Your task to perform on an android device: Open accessibility settings Image 0: 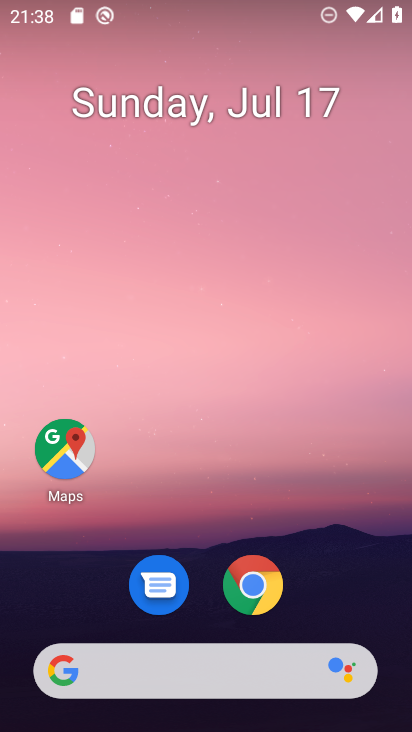
Step 0: drag from (216, 648) to (263, 104)
Your task to perform on an android device: Open accessibility settings Image 1: 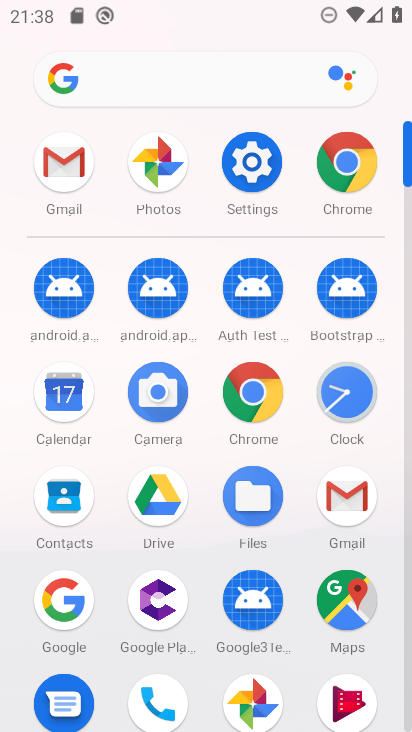
Step 1: click (261, 175)
Your task to perform on an android device: Open accessibility settings Image 2: 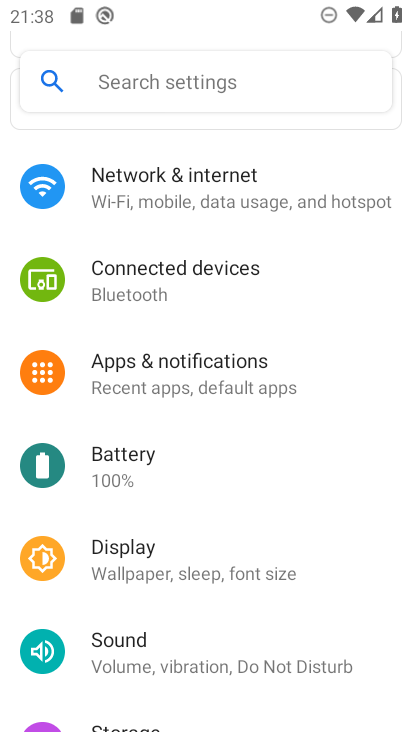
Step 2: drag from (233, 628) to (315, 232)
Your task to perform on an android device: Open accessibility settings Image 3: 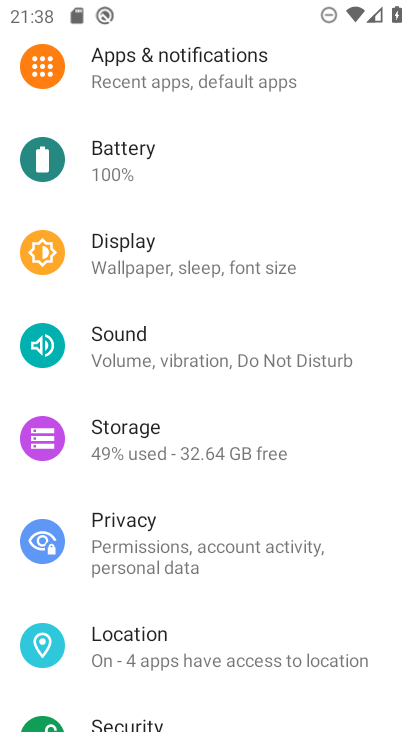
Step 3: drag from (203, 630) to (307, 163)
Your task to perform on an android device: Open accessibility settings Image 4: 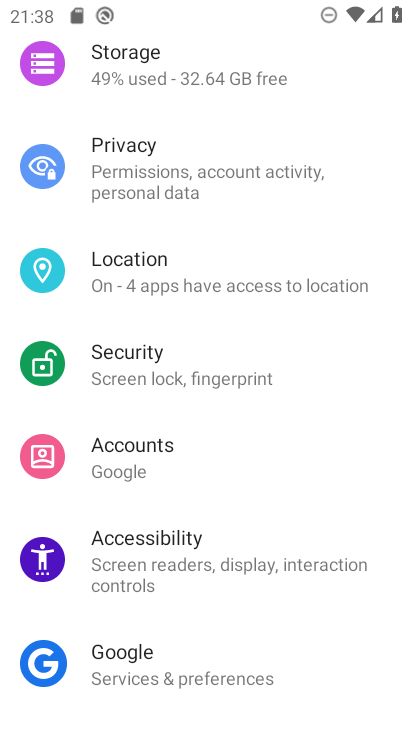
Step 4: click (181, 541)
Your task to perform on an android device: Open accessibility settings Image 5: 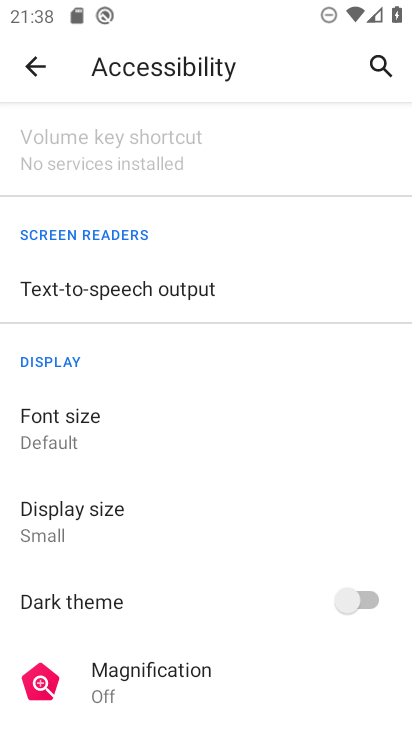
Step 5: task complete